Your task to perform on an android device: turn pop-ups on in chrome Image 0: 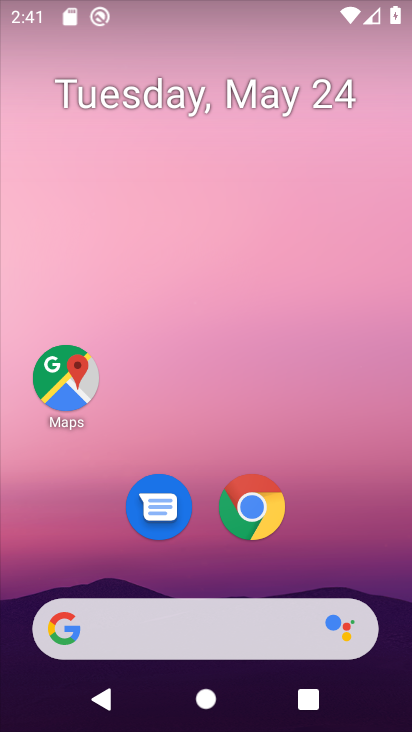
Step 0: click (259, 509)
Your task to perform on an android device: turn pop-ups on in chrome Image 1: 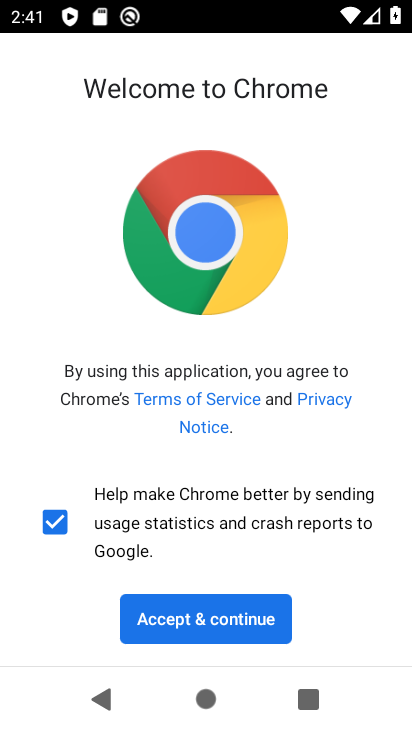
Step 1: click (170, 612)
Your task to perform on an android device: turn pop-ups on in chrome Image 2: 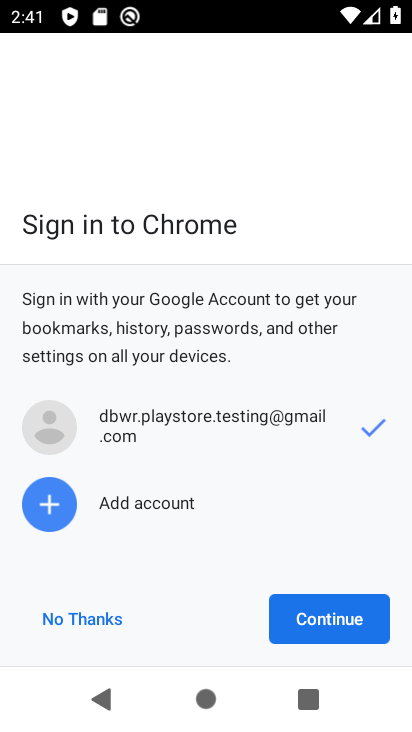
Step 2: click (324, 624)
Your task to perform on an android device: turn pop-ups on in chrome Image 3: 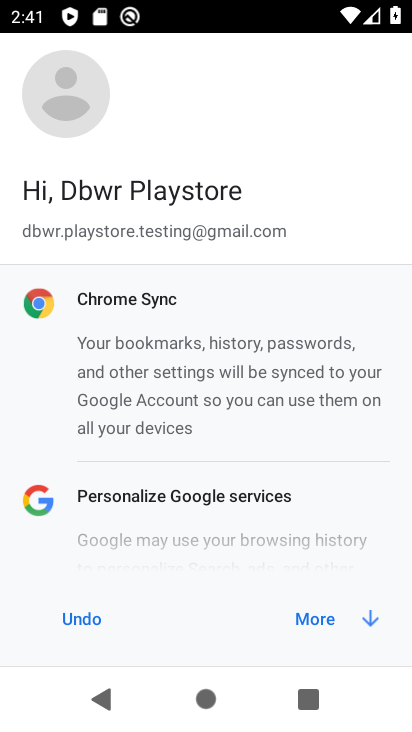
Step 3: click (313, 618)
Your task to perform on an android device: turn pop-ups on in chrome Image 4: 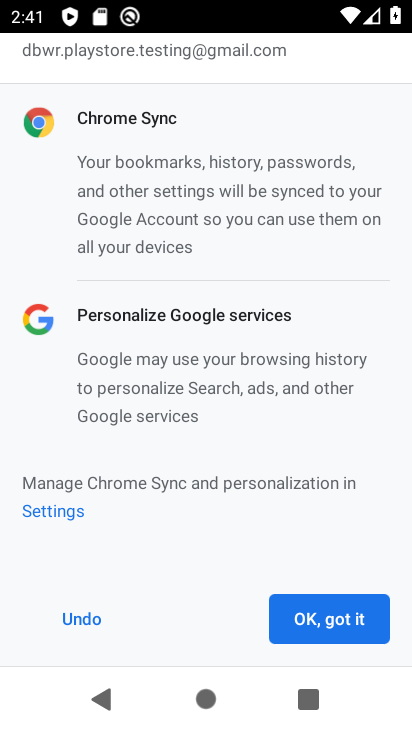
Step 4: click (315, 618)
Your task to perform on an android device: turn pop-ups on in chrome Image 5: 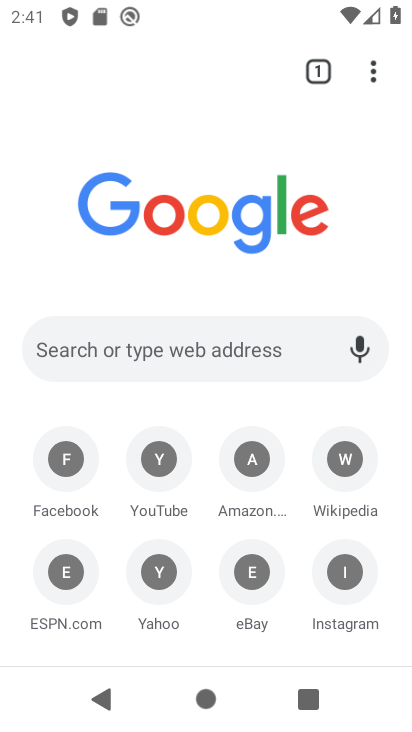
Step 5: drag from (377, 64) to (130, 493)
Your task to perform on an android device: turn pop-ups on in chrome Image 6: 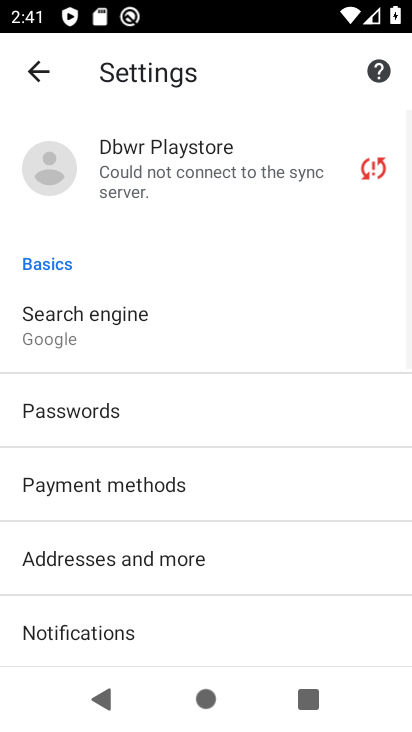
Step 6: drag from (100, 615) to (240, 144)
Your task to perform on an android device: turn pop-ups on in chrome Image 7: 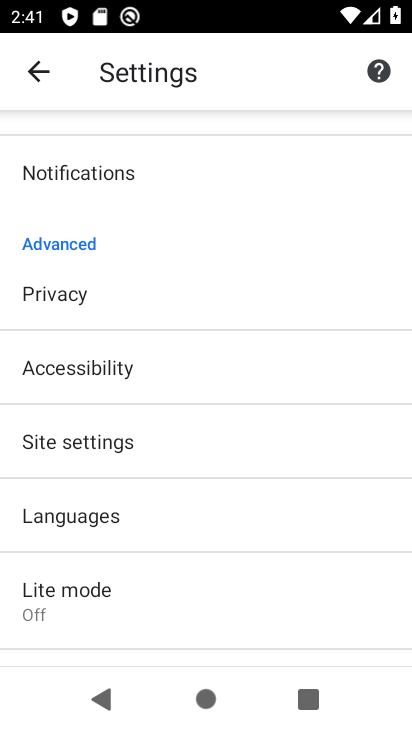
Step 7: click (136, 448)
Your task to perform on an android device: turn pop-ups on in chrome Image 8: 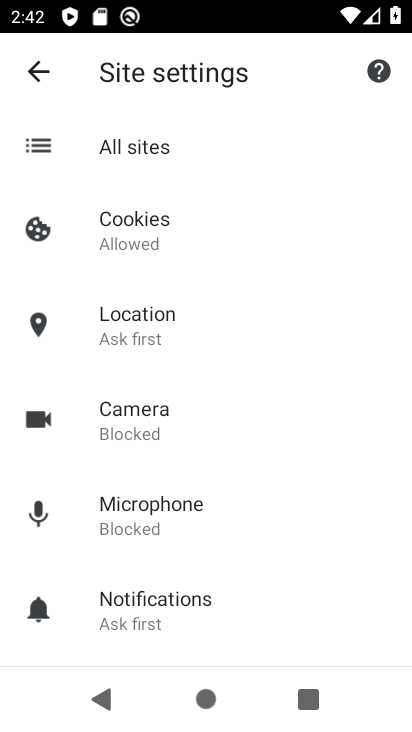
Step 8: drag from (182, 618) to (280, 117)
Your task to perform on an android device: turn pop-ups on in chrome Image 9: 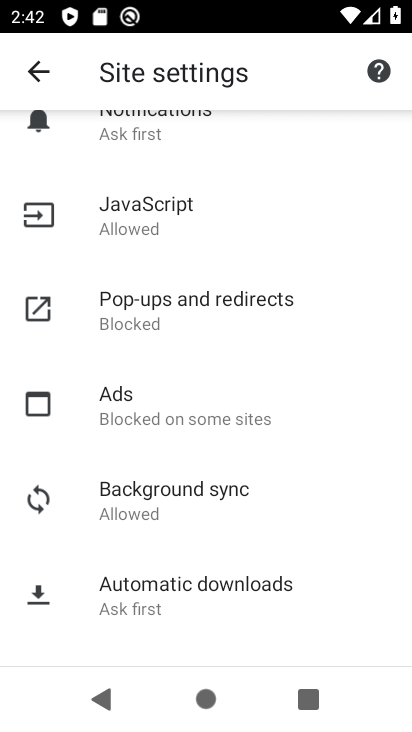
Step 9: click (152, 292)
Your task to perform on an android device: turn pop-ups on in chrome Image 10: 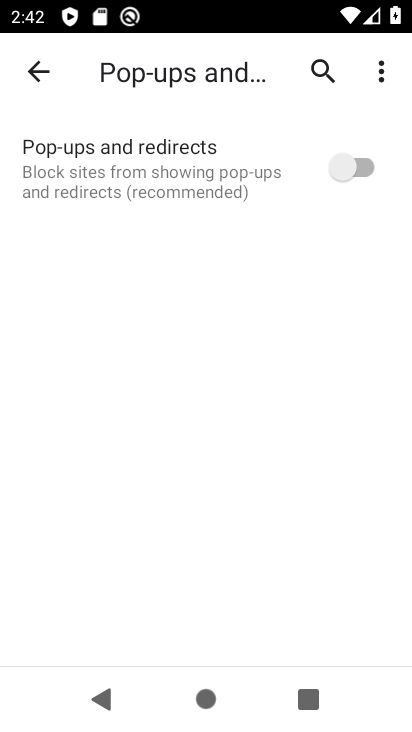
Step 10: click (347, 173)
Your task to perform on an android device: turn pop-ups on in chrome Image 11: 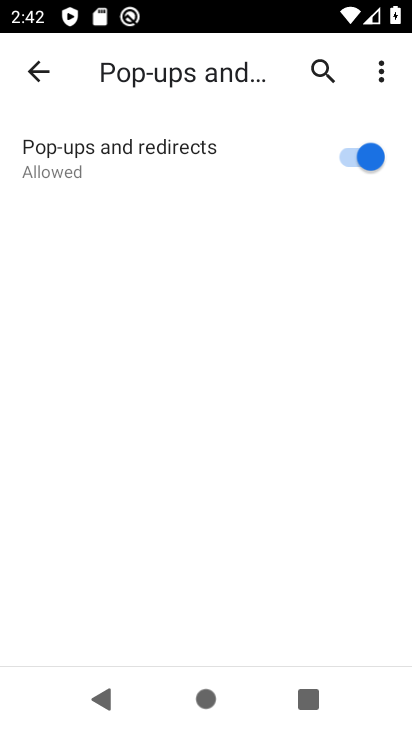
Step 11: task complete